Your task to perform on an android device: check battery use Image 0: 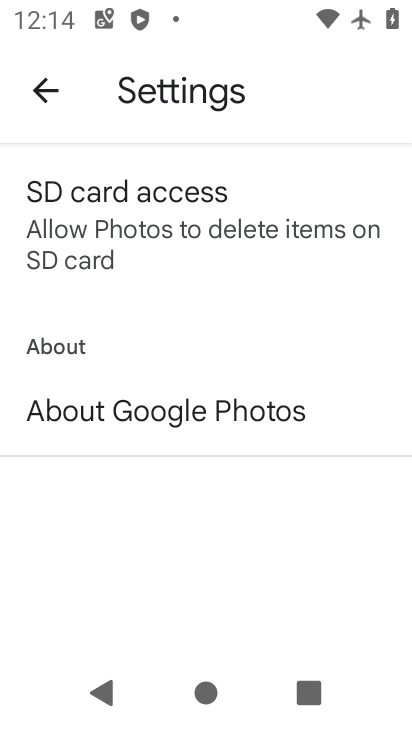
Step 0: drag from (191, 557) to (267, 256)
Your task to perform on an android device: check battery use Image 1: 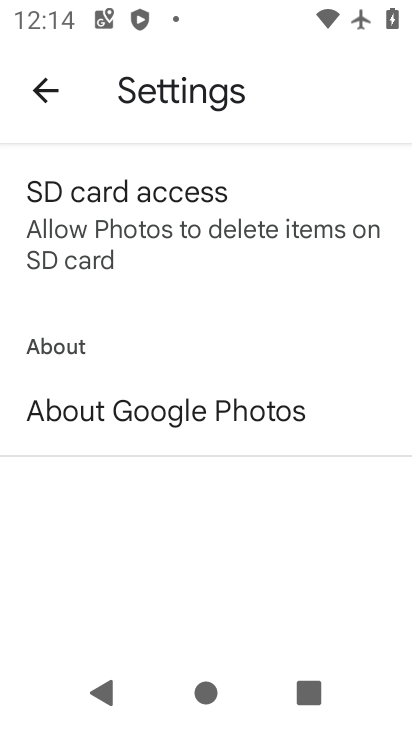
Step 1: press home button
Your task to perform on an android device: check battery use Image 2: 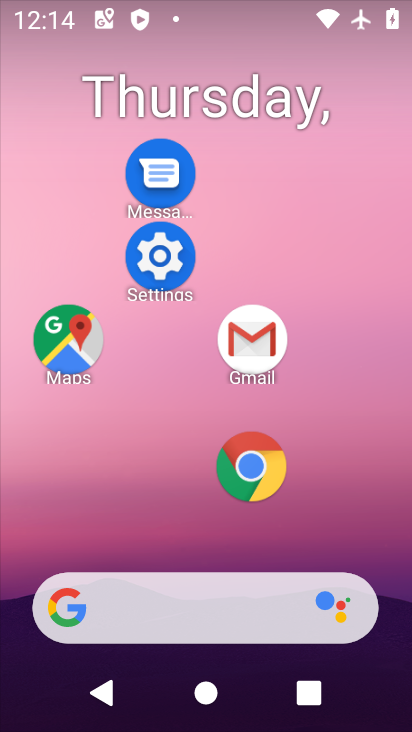
Step 2: drag from (181, 560) to (217, 205)
Your task to perform on an android device: check battery use Image 3: 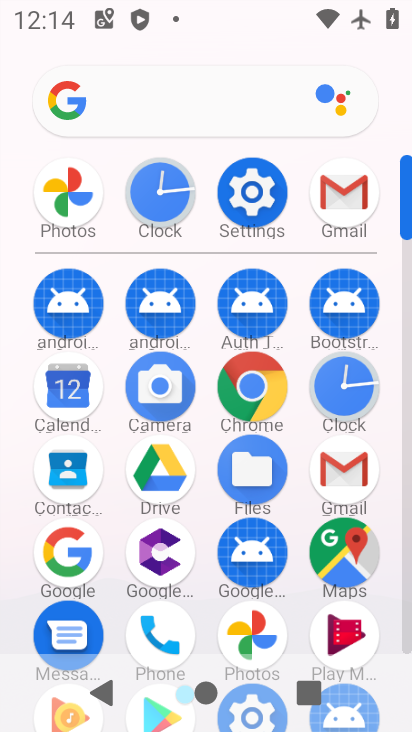
Step 3: click (242, 195)
Your task to perform on an android device: check battery use Image 4: 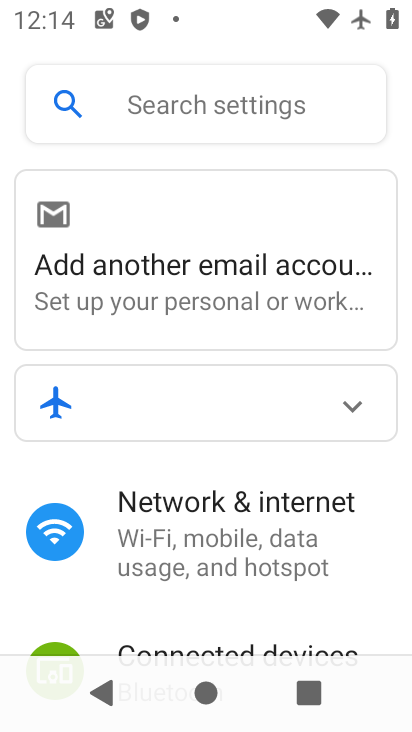
Step 4: drag from (200, 560) to (226, 251)
Your task to perform on an android device: check battery use Image 5: 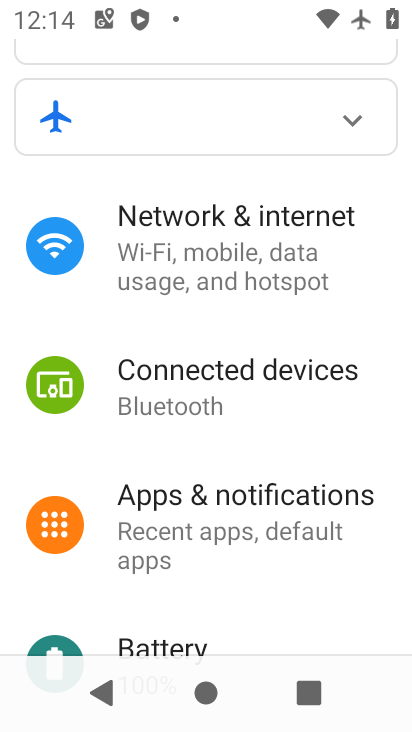
Step 5: click (190, 630)
Your task to perform on an android device: check battery use Image 6: 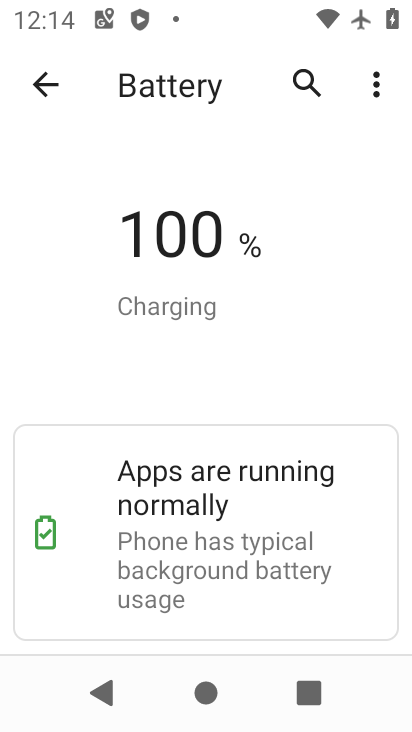
Step 6: drag from (243, 637) to (292, 184)
Your task to perform on an android device: check battery use Image 7: 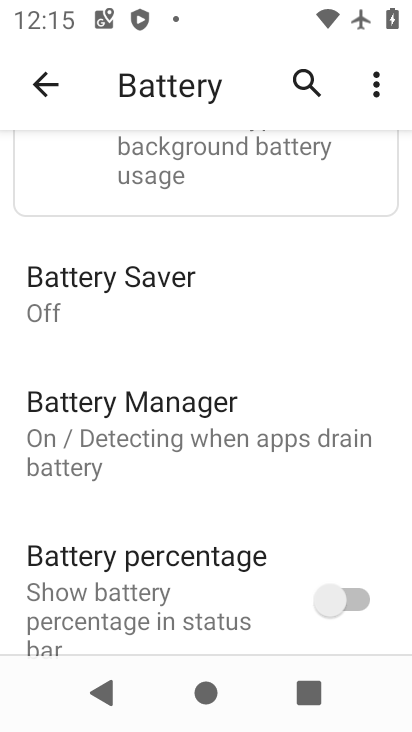
Step 7: click (378, 92)
Your task to perform on an android device: check battery use Image 8: 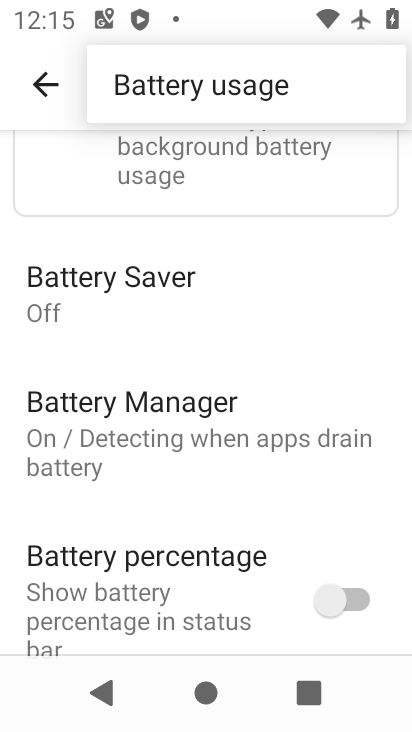
Step 8: click (271, 100)
Your task to perform on an android device: check battery use Image 9: 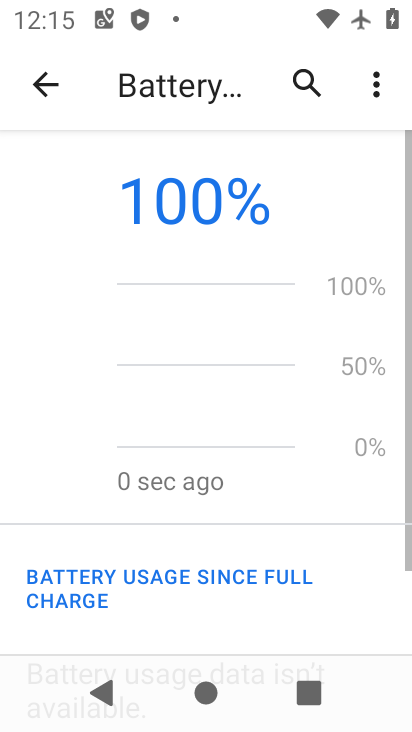
Step 9: task complete